Your task to perform on an android device: add a contact in the contacts app Image 0: 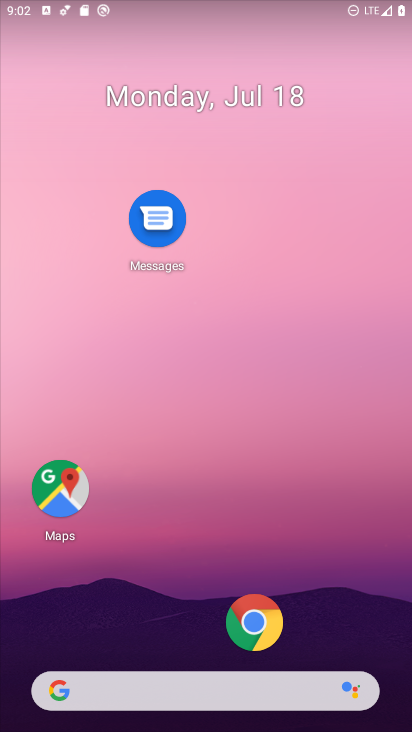
Step 0: drag from (208, 672) to (180, 331)
Your task to perform on an android device: add a contact in the contacts app Image 1: 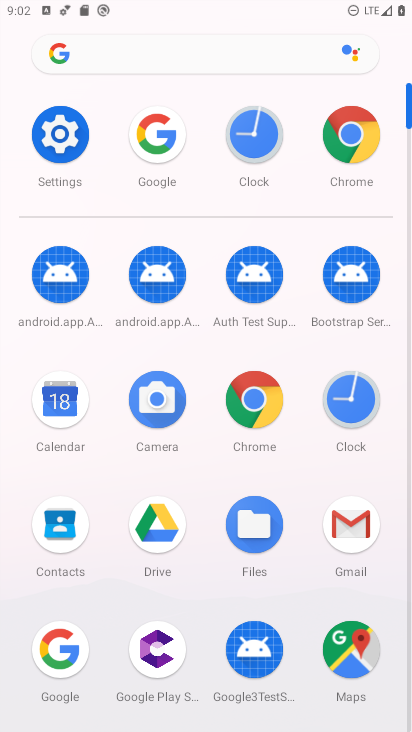
Step 1: click (55, 523)
Your task to perform on an android device: add a contact in the contacts app Image 2: 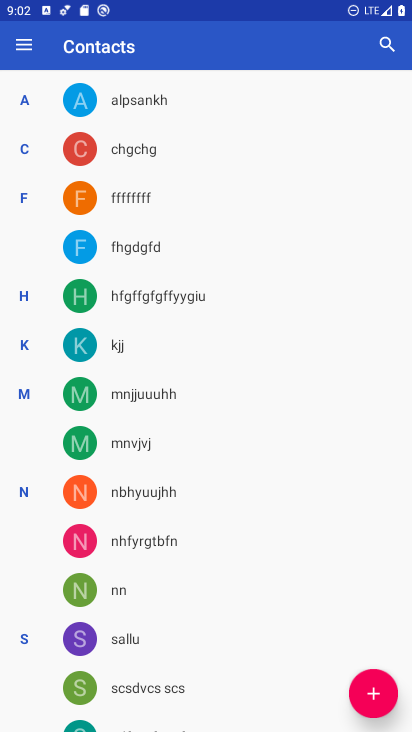
Step 2: click (369, 716)
Your task to perform on an android device: add a contact in the contacts app Image 3: 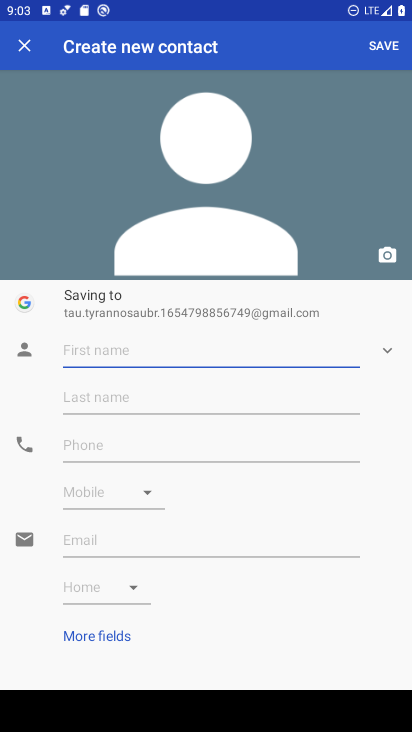
Step 3: type "fghgfcdxbcf"
Your task to perform on an android device: add a contact in the contacts app Image 4: 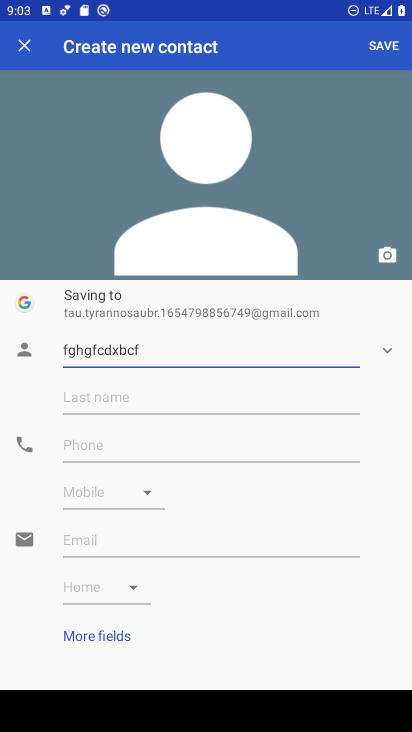
Step 4: click (187, 447)
Your task to perform on an android device: add a contact in the contacts app Image 5: 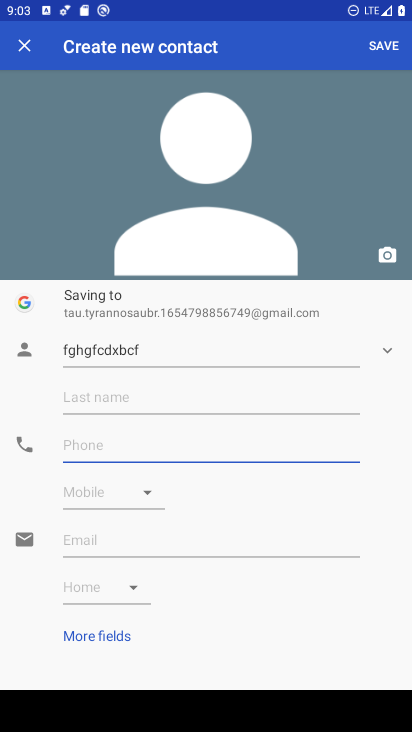
Step 5: type "654345678"
Your task to perform on an android device: add a contact in the contacts app Image 6: 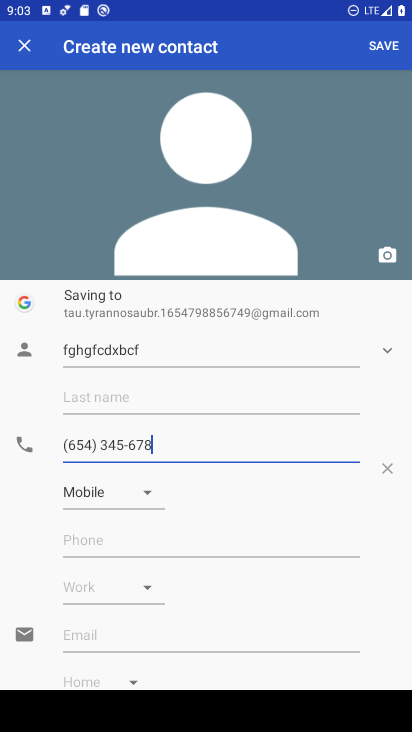
Step 6: click (371, 54)
Your task to perform on an android device: add a contact in the contacts app Image 7: 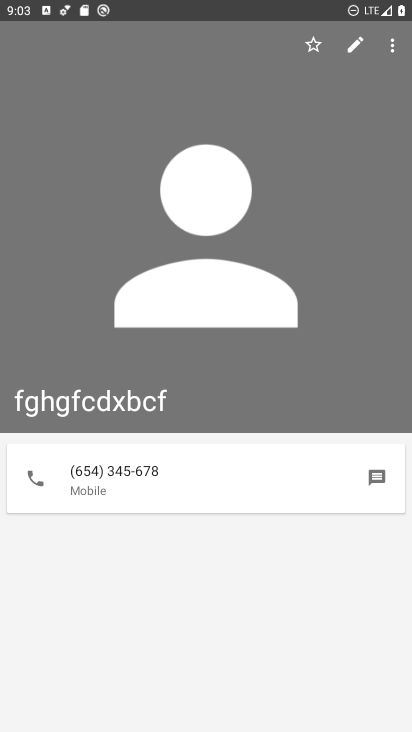
Step 7: task complete